Your task to perform on an android device: install app "Expedia: Hotels, Flights & Car" Image 0: 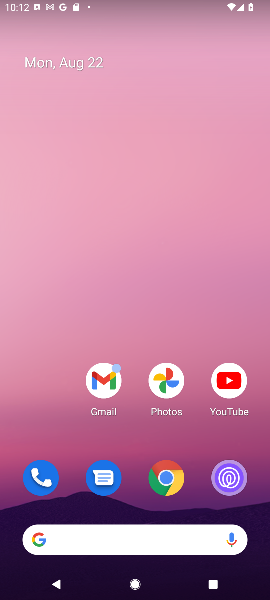
Step 0: drag from (141, 519) to (127, 197)
Your task to perform on an android device: install app "Expedia: Hotels, Flights & Car" Image 1: 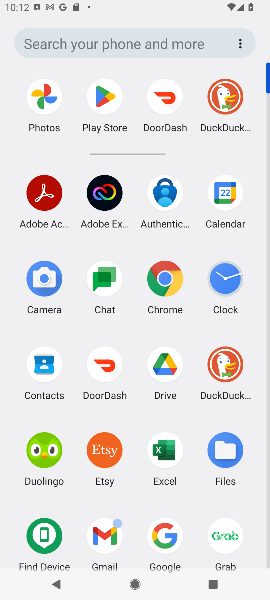
Step 1: click (106, 107)
Your task to perform on an android device: install app "Expedia: Hotels, Flights & Car" Image 2: 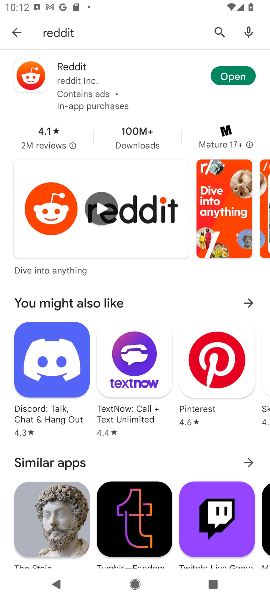
Step 2: click (221, 40)
Your task to perform on an android device: install app "Expedia: Hotels, Flights & Car" Image 3: 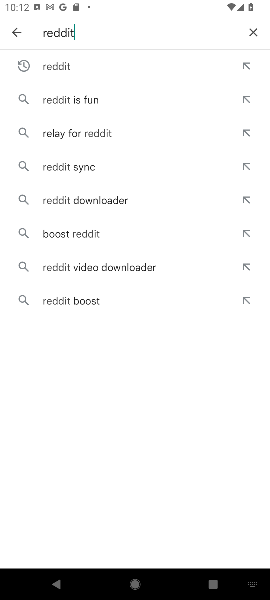
Step 3: click (250, 36)
Your task to perform on an android device: install app "Expedia: Hotels, Flights & Car" Image 4: 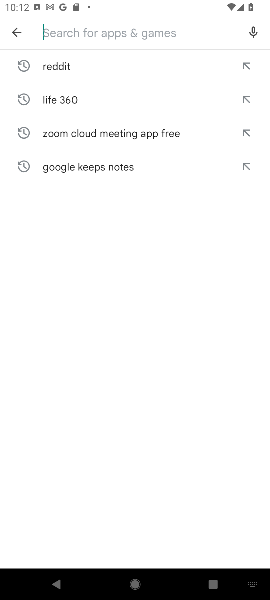
Step 4: type "expedia"
Your task to perform on an android device: install app "Expedia: Hotels, Flights & Car" Image 5: 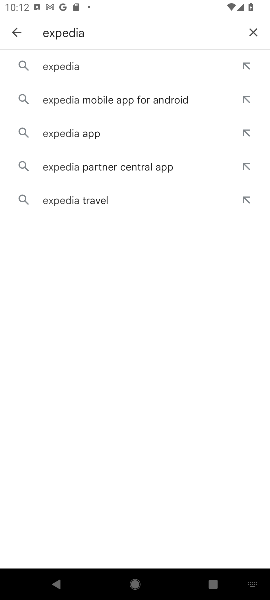
Step 5: click (73, 66)
Your task to perform on an android device: install app "Expedia: Hotels, Flights & Car" Image 6: 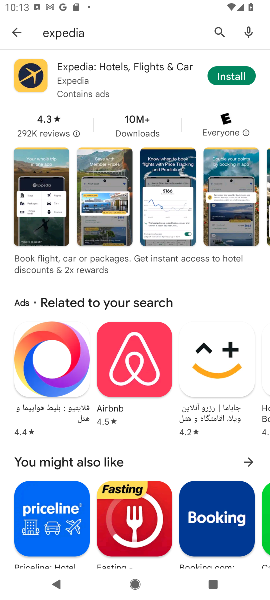
Step 6: click (212, 79)
Your task to perform on an android device: install app "Expedia: Hotels, Flights & Car" Image 7: 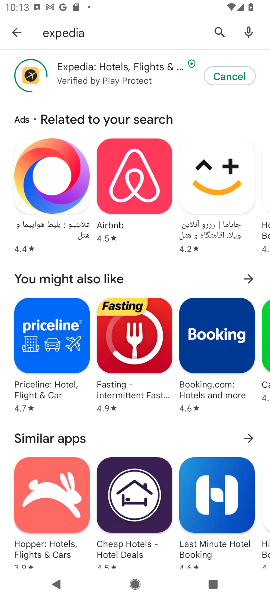
Step 7: task complete